Your task to perform on an android device: toggle sleep mode Image 0: 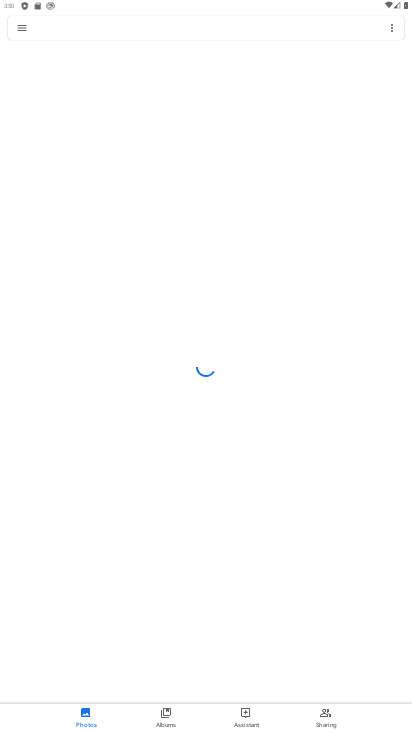
Step 0: press home button
Your task to perform on an android device: toggle sleep mode Image 1: 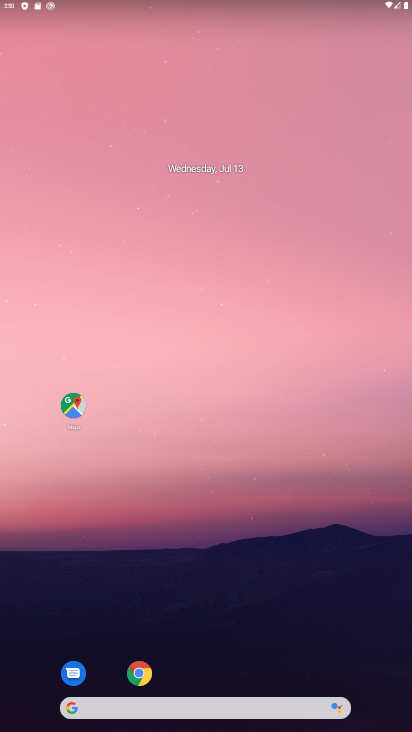
Step 1: drag from (387, 685) to (280, 56)
Your task to perform on an android device: toggle sleep mode Image 2: 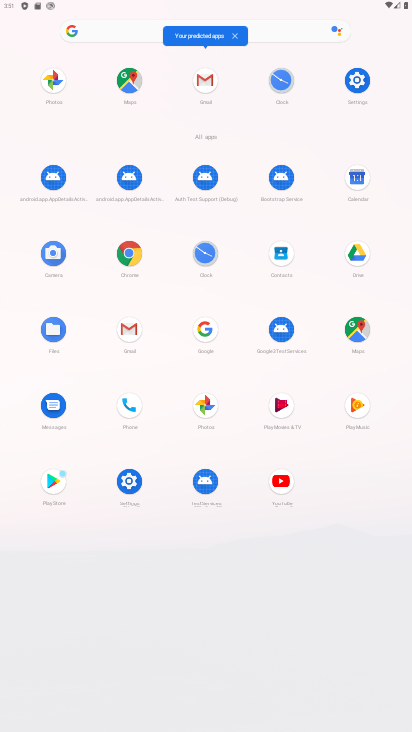
Step 2: click (354, 77)
Your task to perform on an android device: toggle sleep mode Image 3: 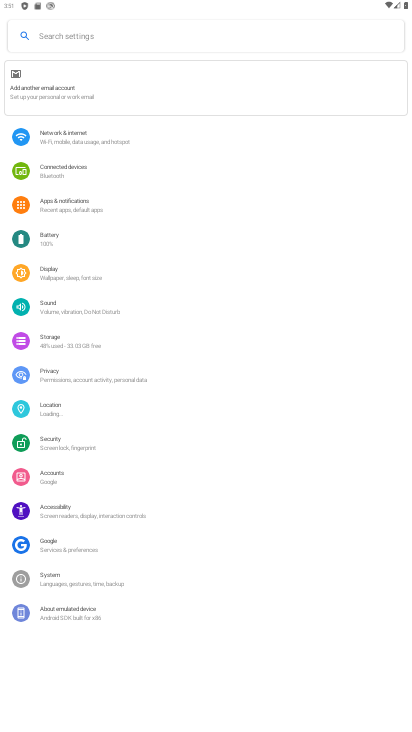
Step 3: click (110, 278)
Your task to perform on an android device: toggle sleep mode Image 4: 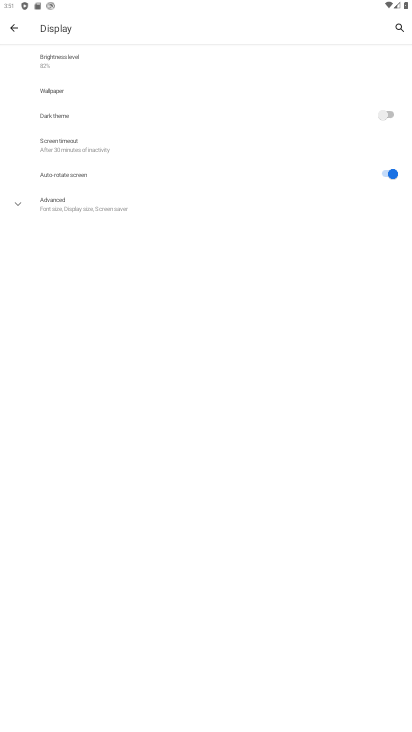
Step 4: click (247, 225)
Your task to perform on an android device: toggle sleep mode Image 5: 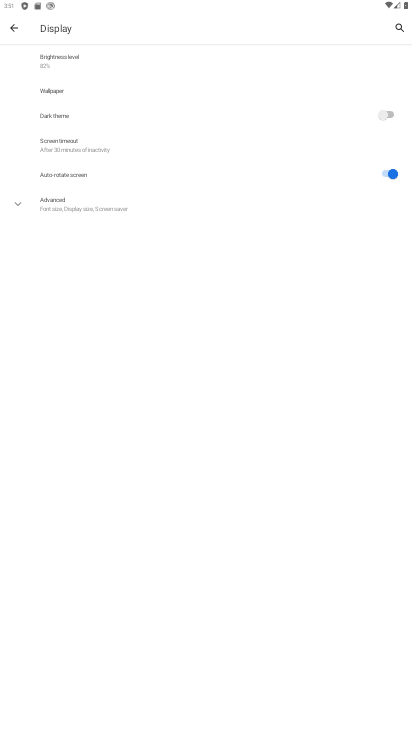
Step 5: click (244, 209)
Your task to perform on an android device: toggle sleep mode Image 6: 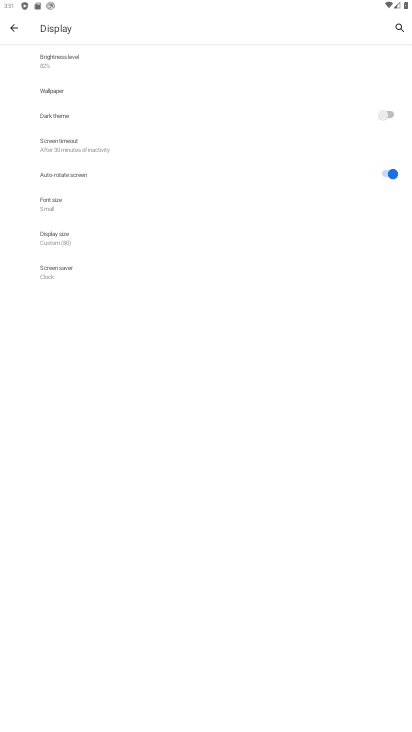
Step 6: task complete